Your task to perform on an android device: Open Google Maps and go to "Timeline" Image 0: 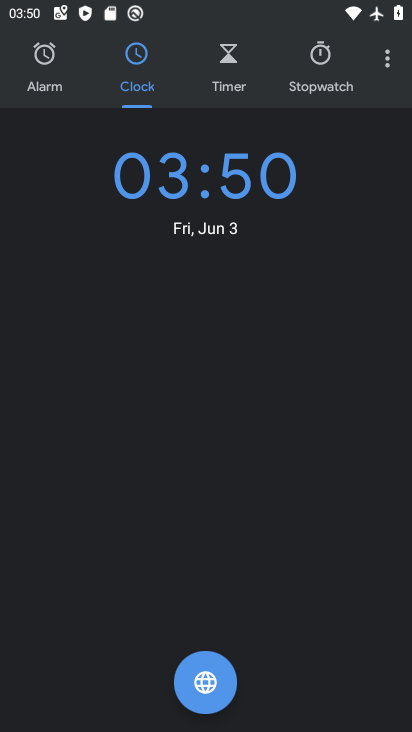
Step 0: press home button
Your task to perform on an android device: Open Google Maps and go to "Timeline" Image 1: 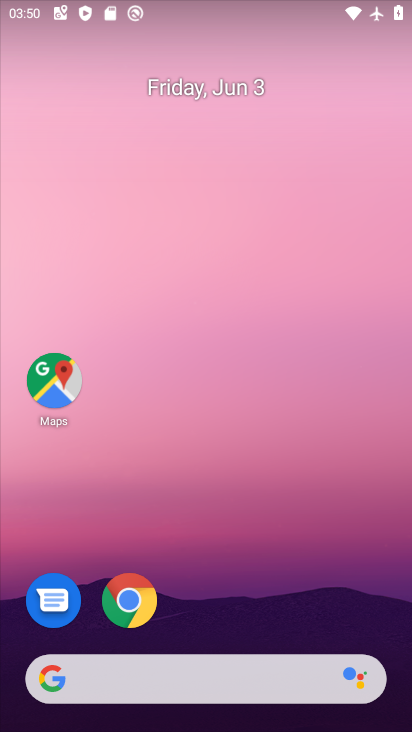
Step 1: click (58, 384)
Your task to perform on an android device: Open Google Maps and go to "Timeline" Image 2: 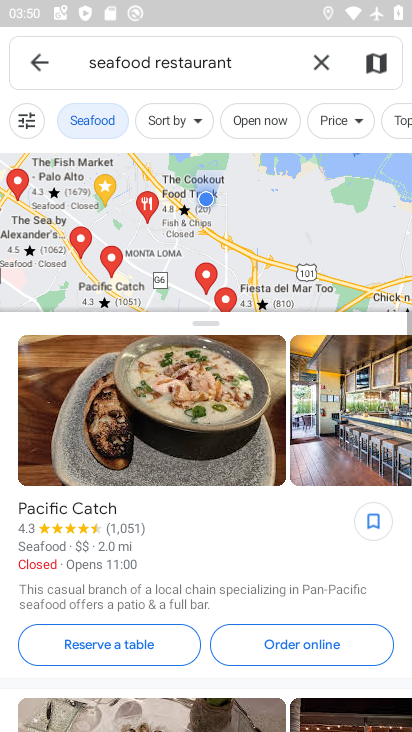
Step 2: click (37, 63)
Your task to perform on an android device: Open Google Maps and go to "Timeline" Image 3: 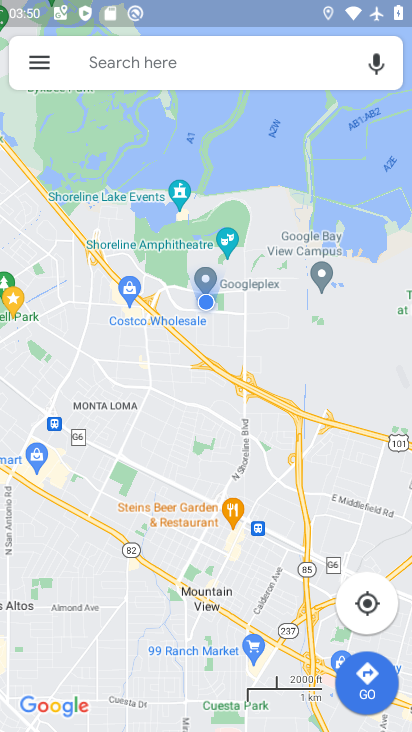
Step 3: click (37, 63)
Your task to perform on an android device: Open Google Maps and go to "Timeline" Image 4: 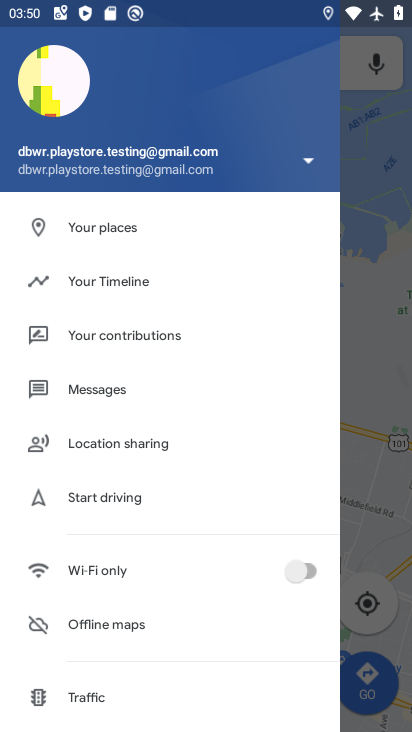
Step 4: click (118, 288)
Your task to perform on an android device: Open Google Maps and go to "Timeline" Image 5: 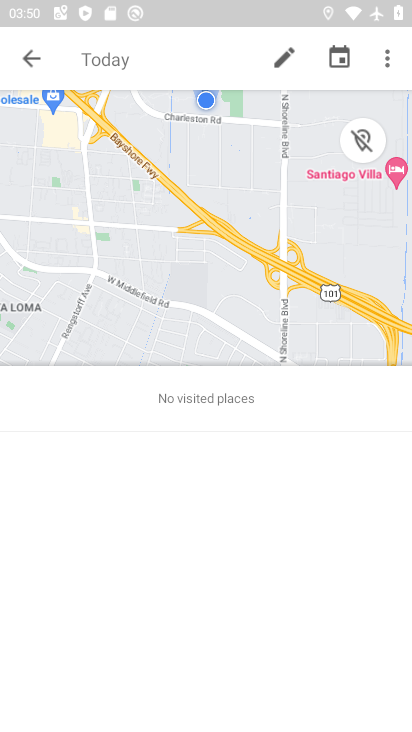
Step 5: task complete